Your task to perform on an android device: Open Google Maps and go to "Timeline" Image 0: 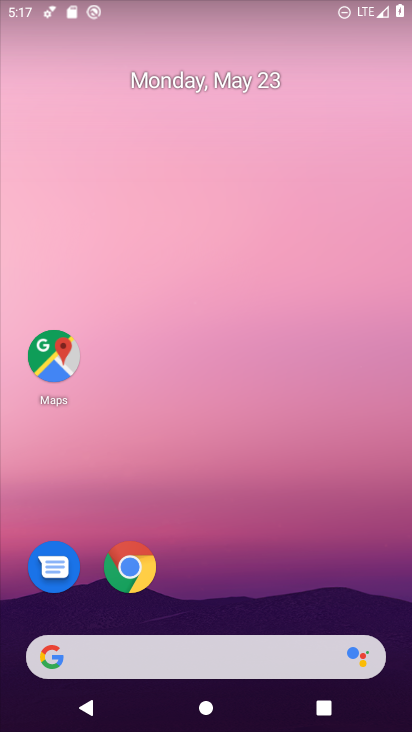
Step 0: click (51, 358)
Your task to perform on an android device: Open Google Maps and go to "Timeline" Image 1: 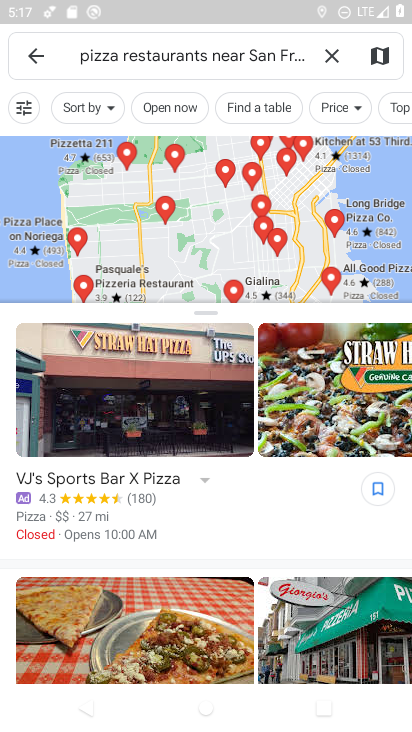
Step 1: click (328, 61)
Your task to perform on an android device: Open Google Maps and go to "Timeline" Image 2: 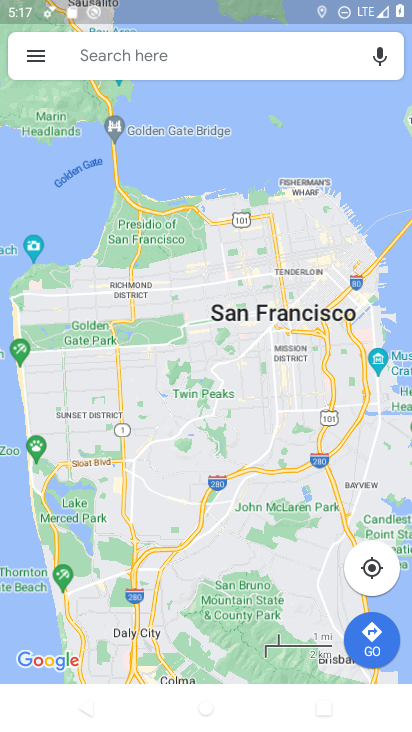
Step 2: click (35, 60)
Your task to perform on an android device: Open Google Maps and go to "Timeline" Image 3: 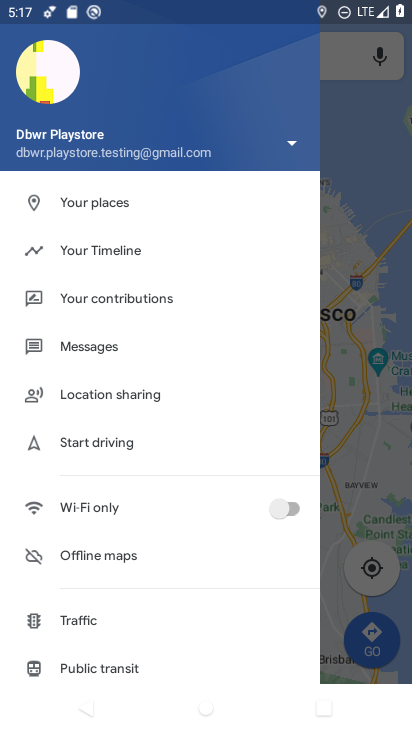
Step 3: click (93, 248)
Your task to perform on an android device: Open Google Maps and go to "Timeline" Image 4: 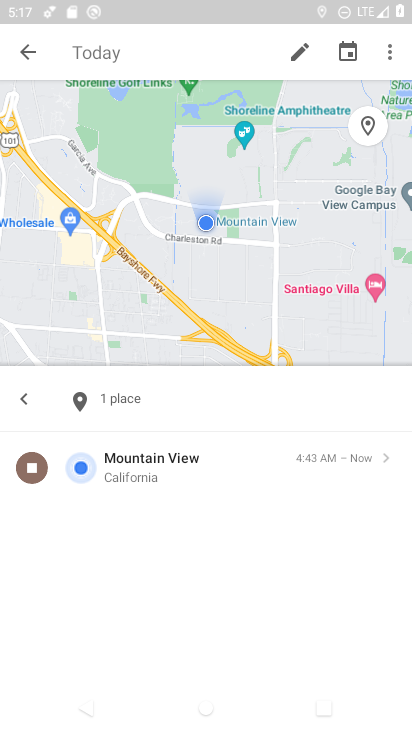
Step 4: task complete